Your task to perform on an android device: open a new tab in the chrome app Image 0: 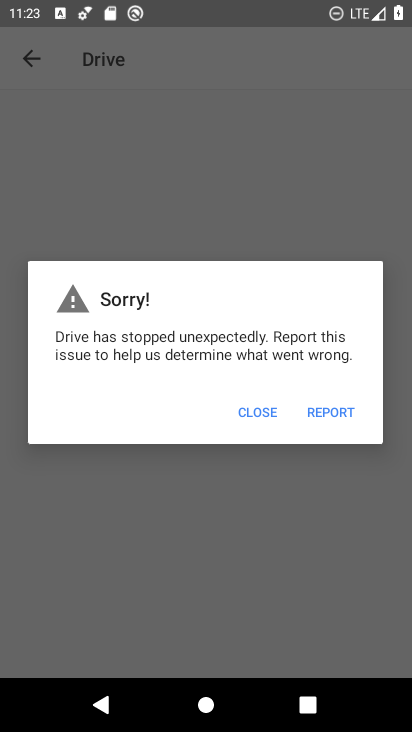
Step 0: press home button
Your task to perform on an android device: open a new tab in the chrome app Image 1: 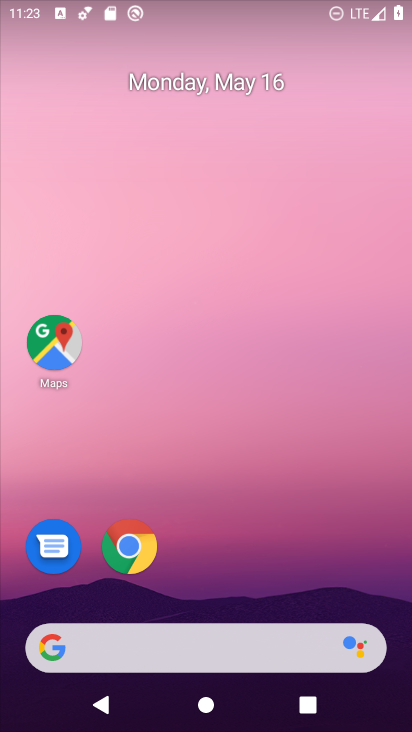
Step 1: click (133, 550)
Your task to perform on an android device: open a new tab in the chrome app Image 2: 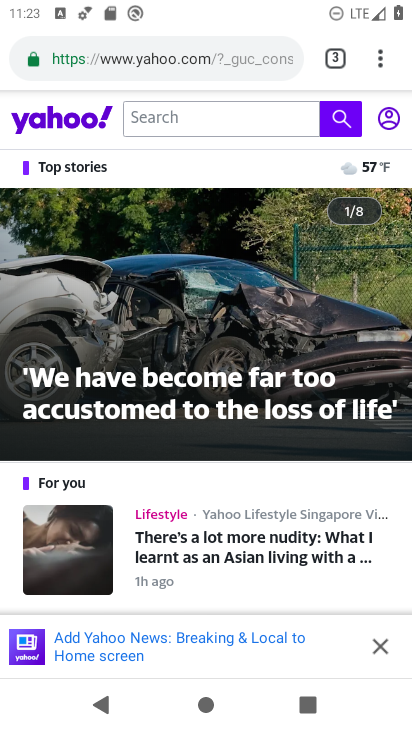
Step 2: click (342, 54)
Your task to perform on an android device: open a new tab in the chrome app Image 3: 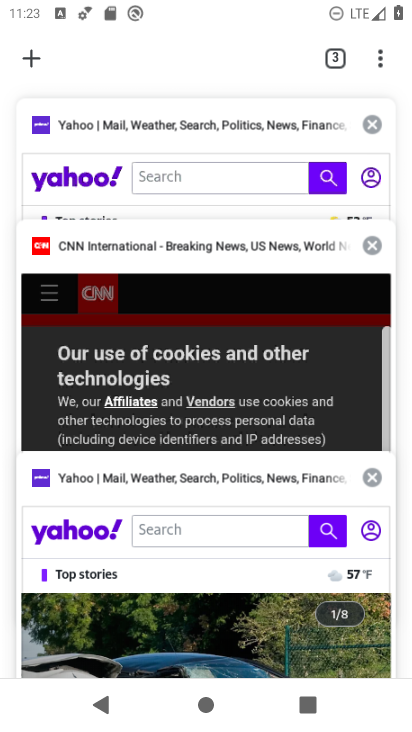
Step 3: click (30, 60)
Your task to perform on an android device: open a new tab in the chrome app Image 4: 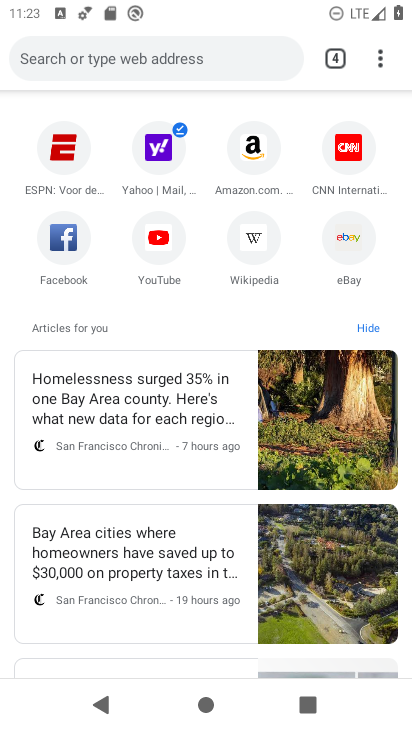
Step 4: task complete